Your task to perform on an android device: set the stopwatch Image 0: 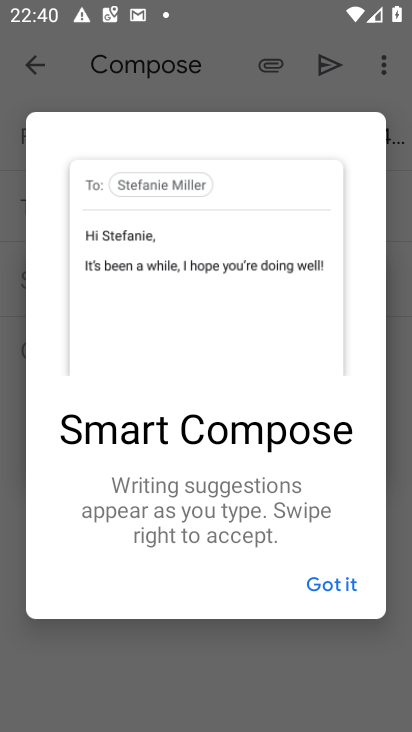
Step 0: press home button
Your task to perform on an android device: set the stopwatch Image 1: 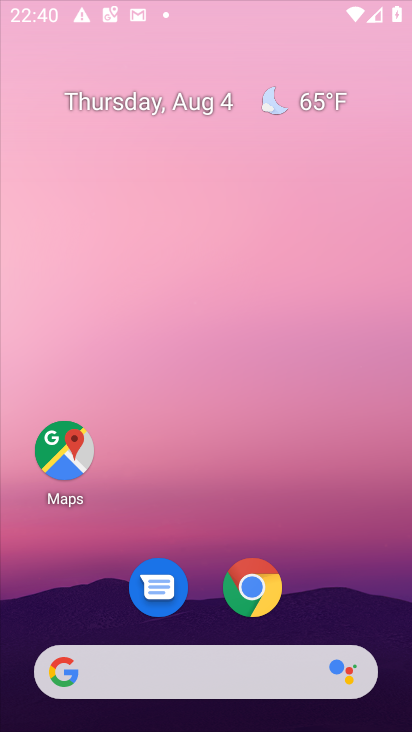
Step 1: drag from (198, 692) to (228, 193)
Your task to perform on an android device: set the stopwatch Image 2: 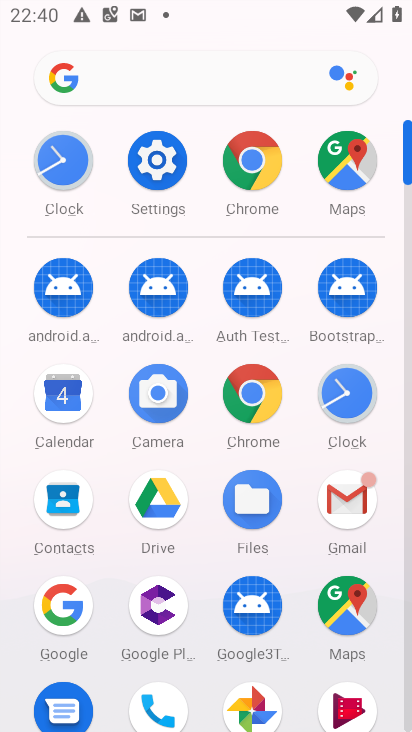
Step 2: click (355, 395)
Your task to perform on an android device: set the stopwatch Image 3: 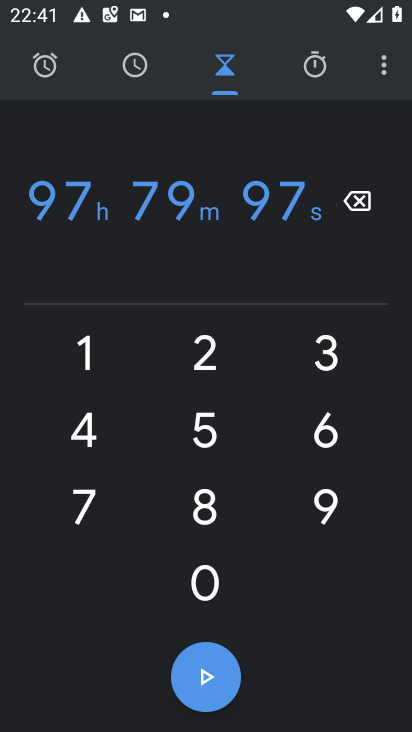
Step 3: click (319, 54)
Your task to perform on an android device: set the stopwatch Image 4: 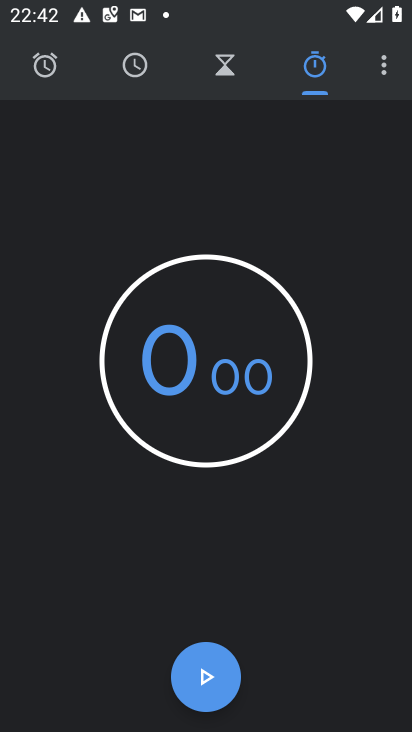
Step 4: task complete